Your task to perform on an android device: set the stopwatch Image 0: 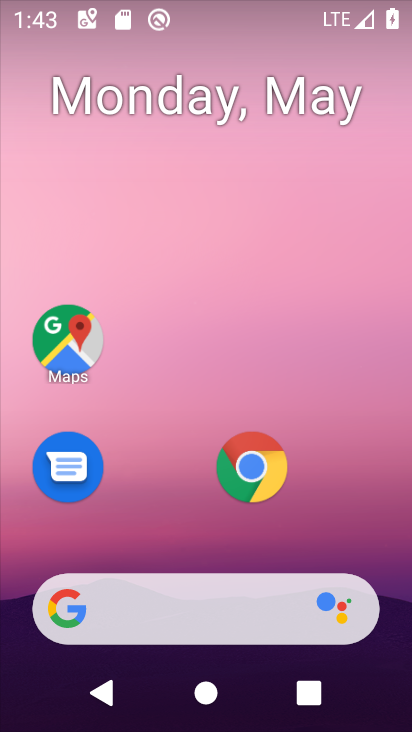
Step 0: drag from (196, 551) to (233, 229)
Your task to perform on an android device: set the stopwatch Image 1: 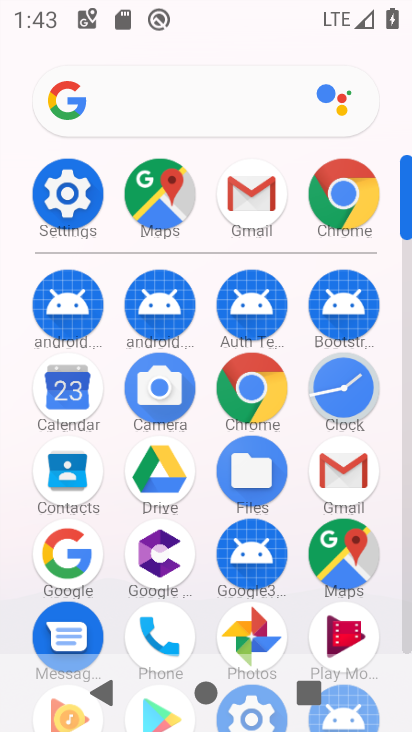
Step 1: click (335, 393)
Your task to perform on an android device: set the stopwatch Image 2: 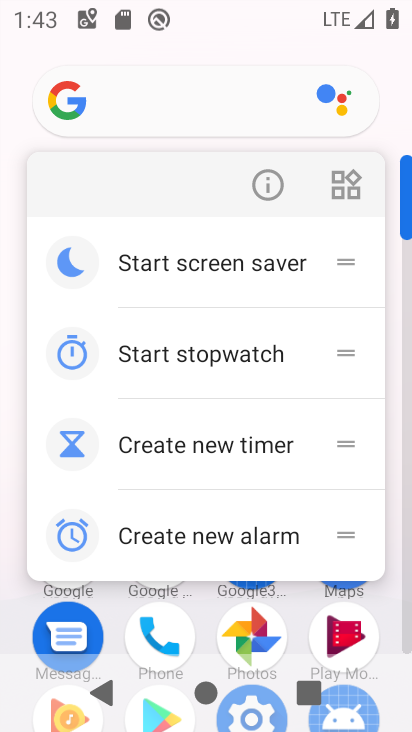
Step 2: click (259, 179)
Your task to perform on an android device: set the stopwatch Image 3: 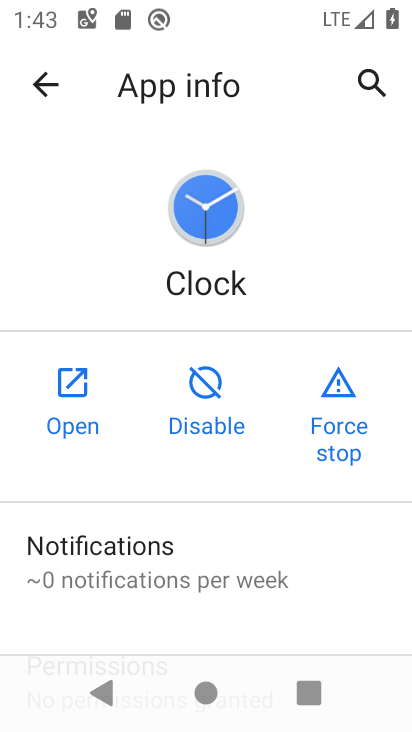
Step 3: click (88, 414)
Your task to perform on an android device: set the stopwatch Image 4: 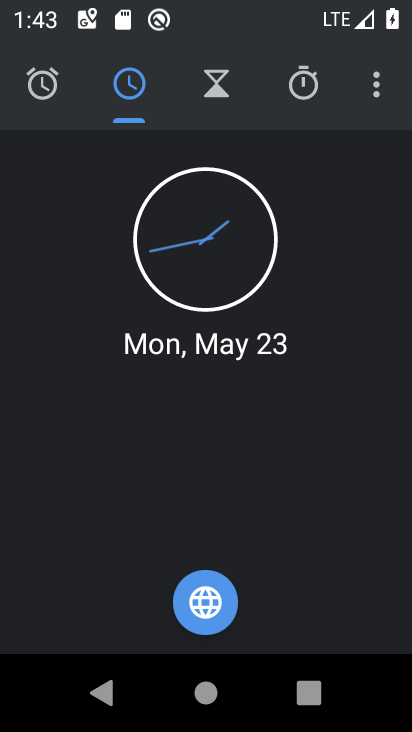
Step 4: click (293, 82)
Your task to perform on an android device: set the stopwatch Image 5: 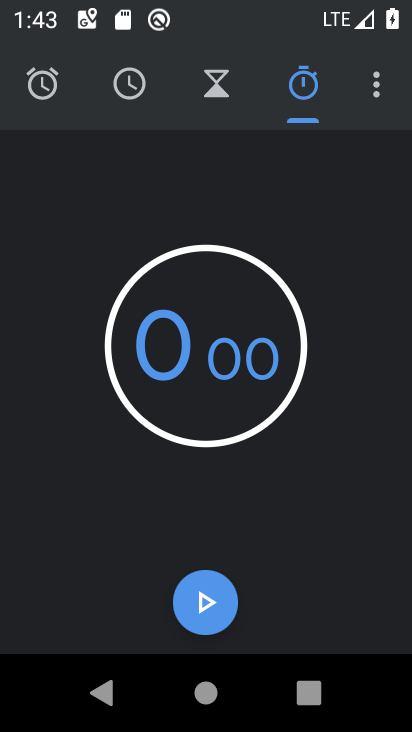
Step 5: drag from (250, 498) to (276, 267)
Your task to perform on an android device: set the stopwatch Image 6: 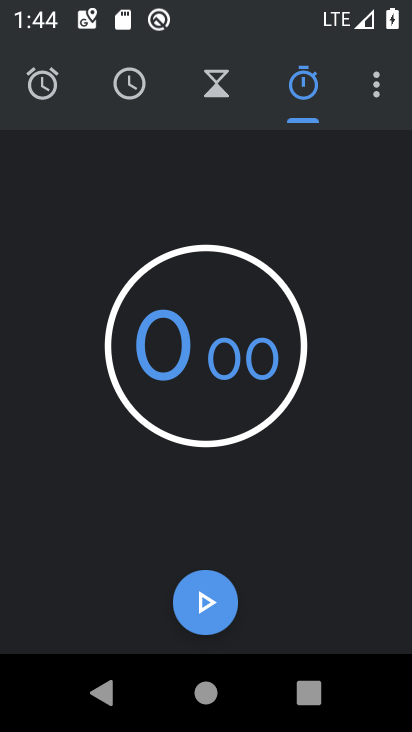
Step 6: drag from (235, 501) to (246, 251)
Your task to perform on an android device: set the stopwatch Image 7: 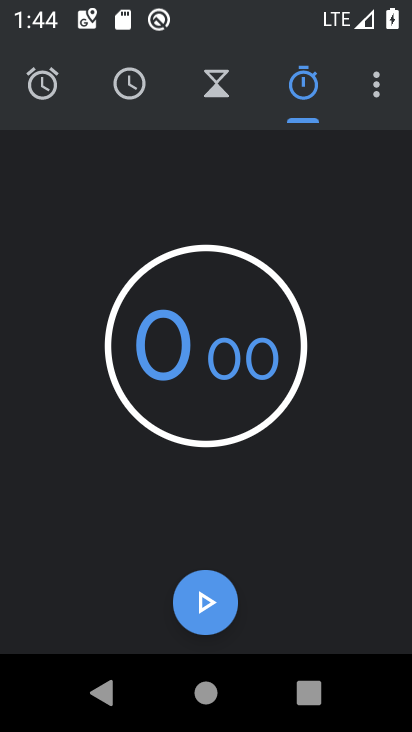
Step 7: click (198, 599)
Your task to perform on an android device: set the stopwatch Image 8: 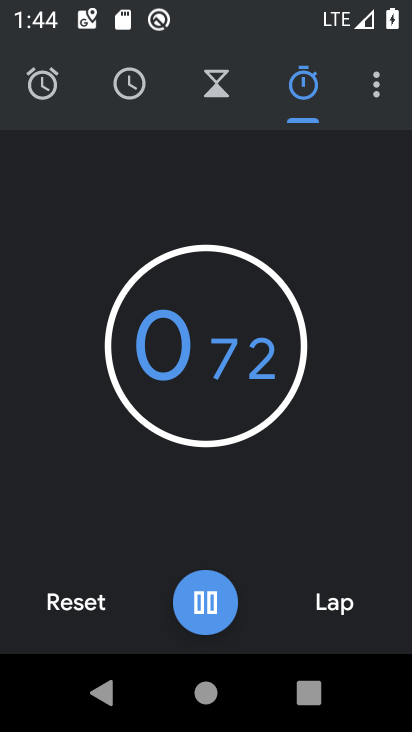
Step 8: task complete